Your task to perform on an android device: turn off wifi Image 0: 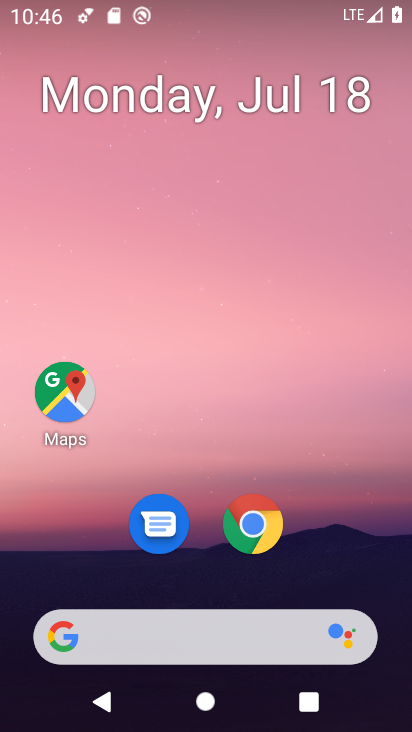
Step 0: drag from (330, 543) to (352, 50)
Your task to perform on an android device: turn off wifi Image 1: 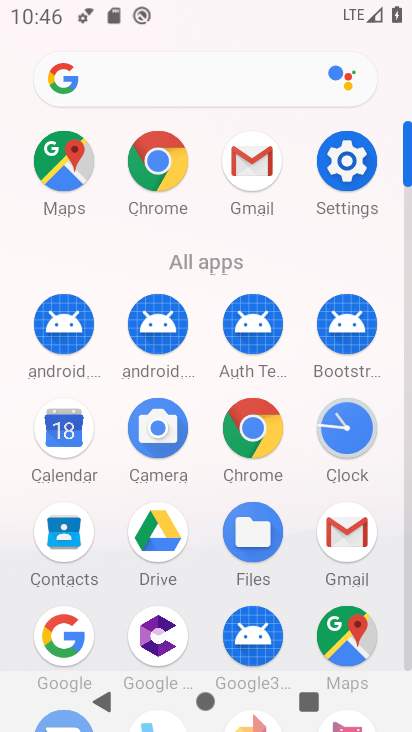
Step 1: click (350, 167)
Your task to perform on an android device: turn off wifi Image 2: 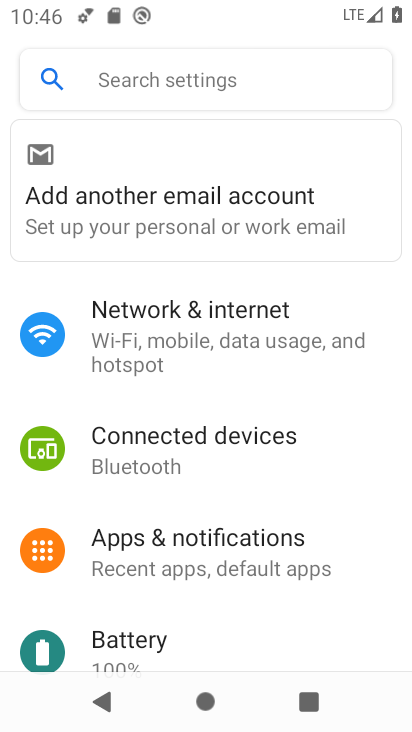
Step 2: click (233, 332)
Your task to perform on an android device: turn off wifi Image 3: 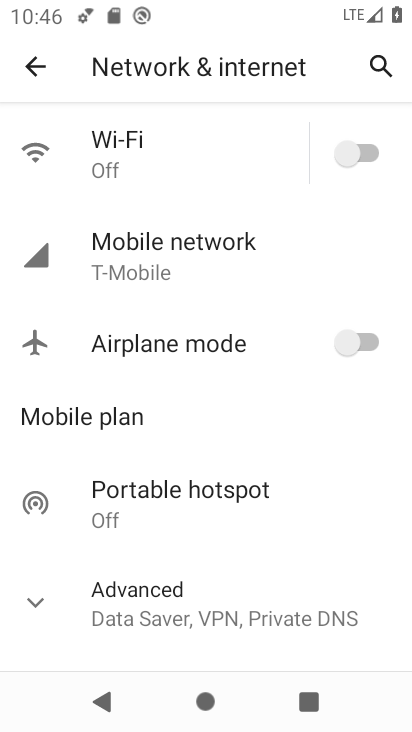
Step 3: task complete